Your task to perform on an android device: allow notifications from all sites in the chrome app Image 0: 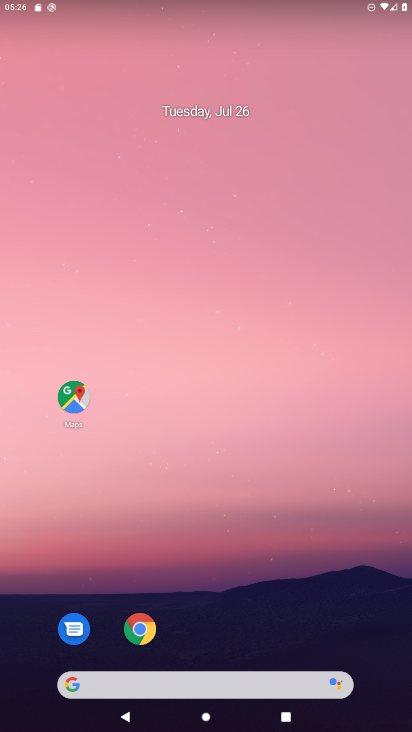
Step 0: click (132, 628)
Your task to perform on an android device: allow notifications from all sites in the chrome app Image 1: 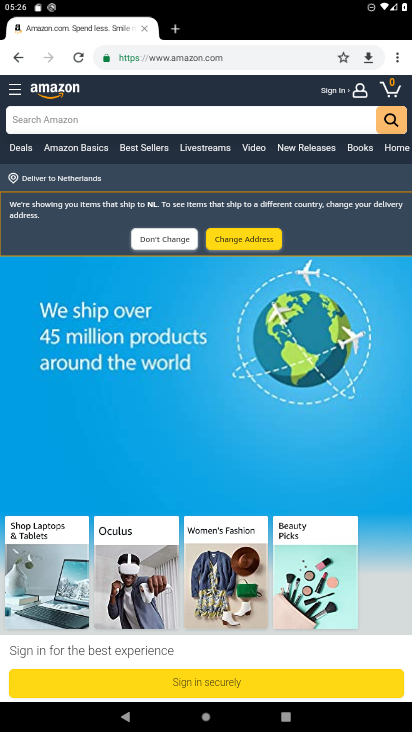
Step 1: click (396, 59)
Your task to perform on an android device: allow notifications from all sites in the chrome app Image 2: 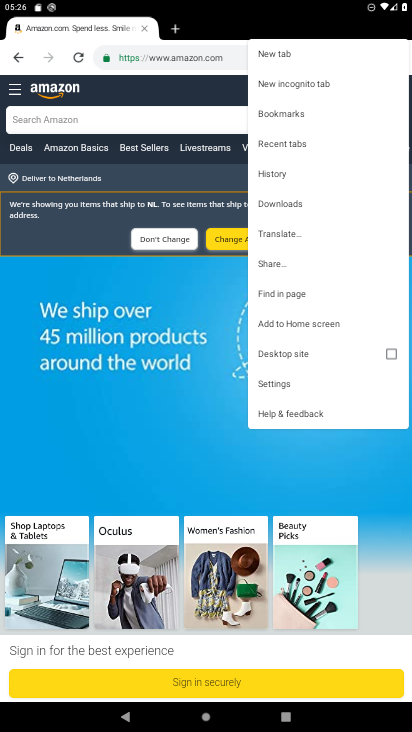
Step 2: click (283, 380)
Your task to perform on an android device: allow notifications from all sites in the chrome app Image 3: 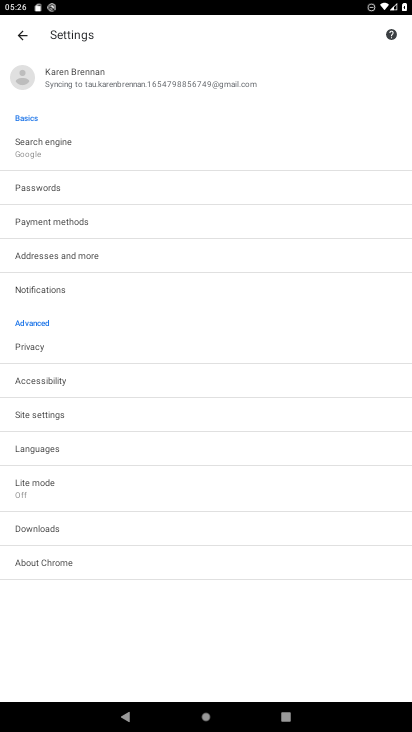
Step 3: click (38, 408)
Your task to perform on an android device: allow notifications from all sites in the chrome app Image 4: 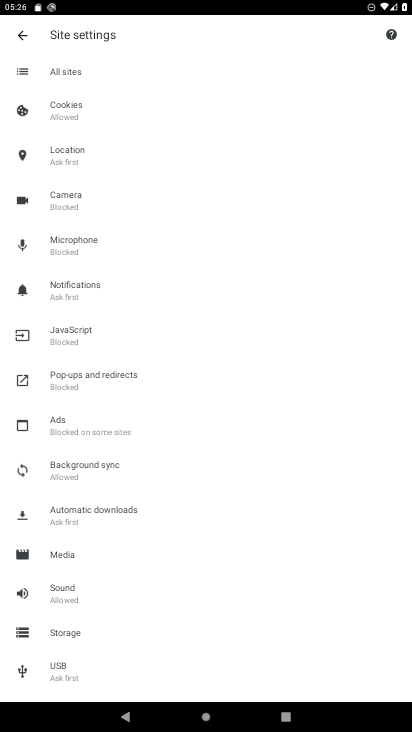
Step 4: click (84, 67)
Your task to perform on an android device: allow notifications from all sites in the chrome app Image 5: 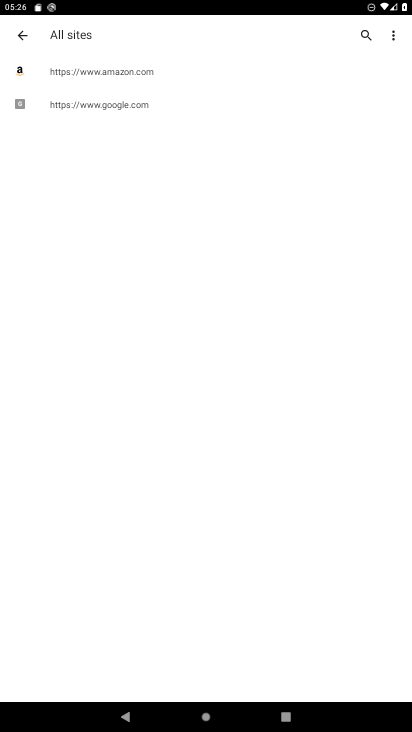
Step 5: click (77, 105)
Your task to perform on an android device: allow notifications from all sites in the chrome app Image 6: 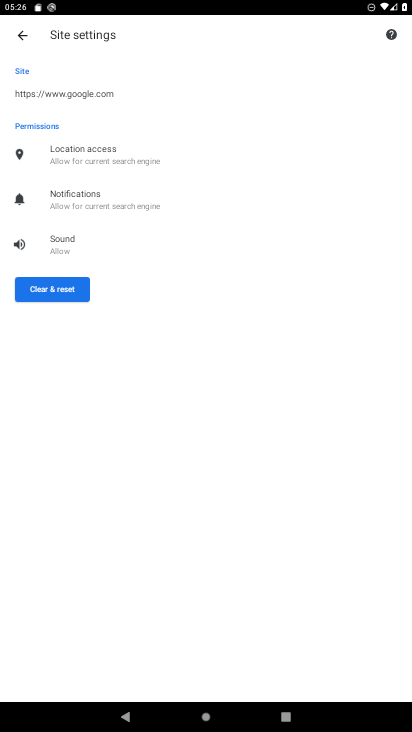
Step 6: click (78, 202)
Your task to perform on an android device: allow notifications from all sites in the chrome app Image 7: 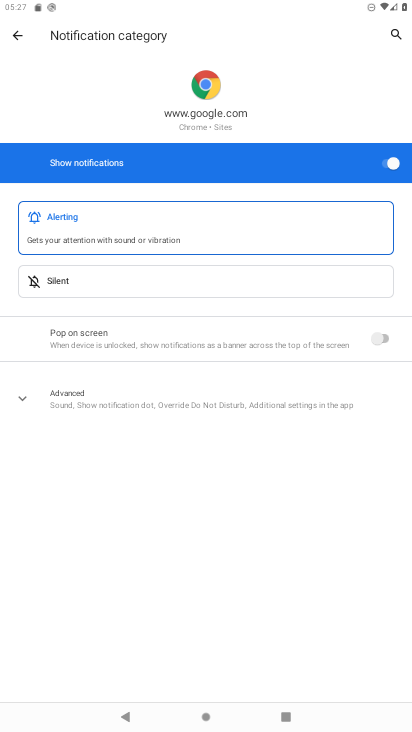
Step 7: task complete